Your task to perform on an android device: check the backup settings in the google photos Image 0: 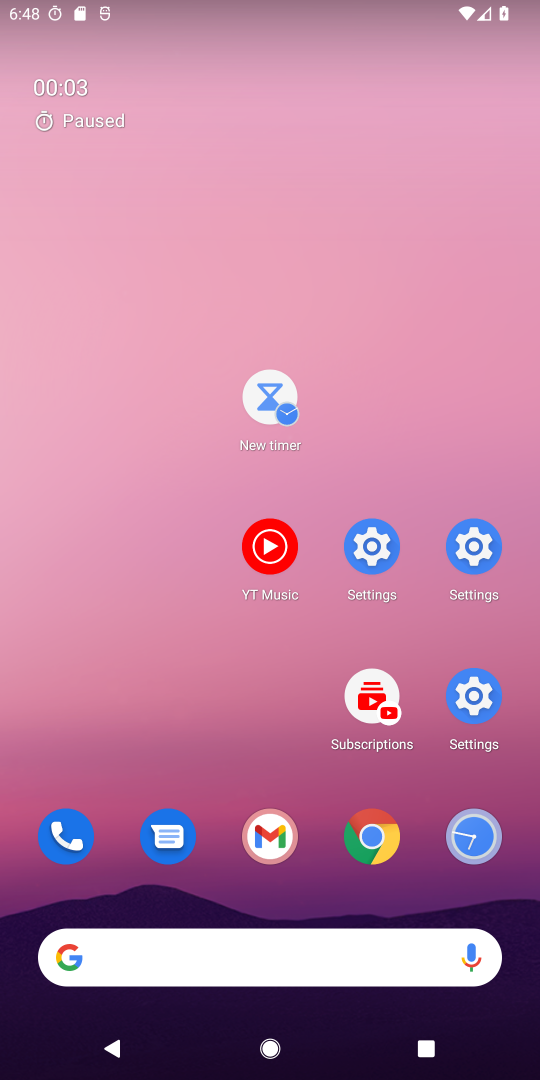
Step 0: drag from (333, 772) to (246, 1)
Your task to perform on an android device: check the backup settings in the google photos Image 1: 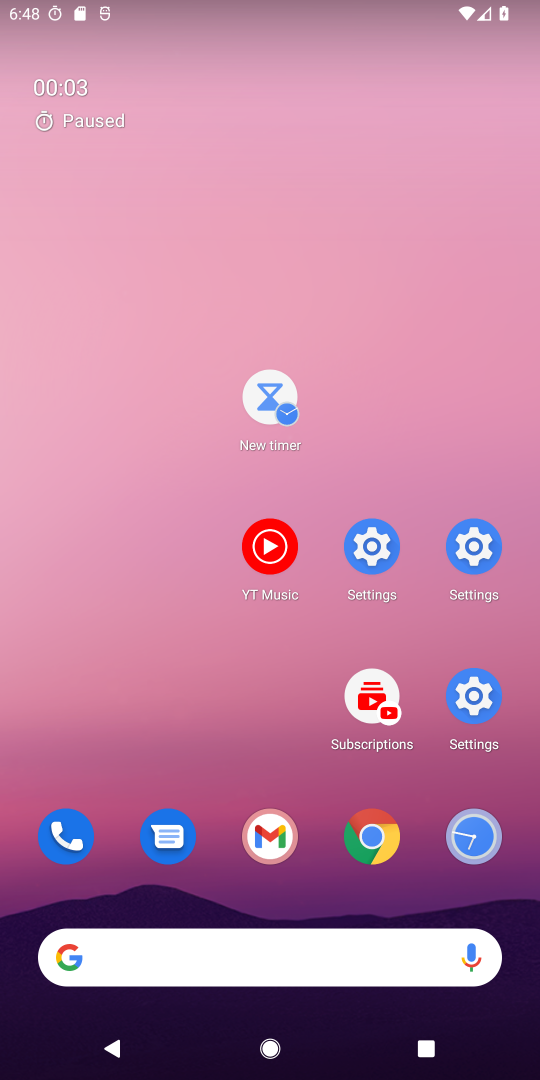
Step 1: drag from (286, 699) to (284, 103)
Your task to perform on an android device: check the backup settings in the google photos Image 2: 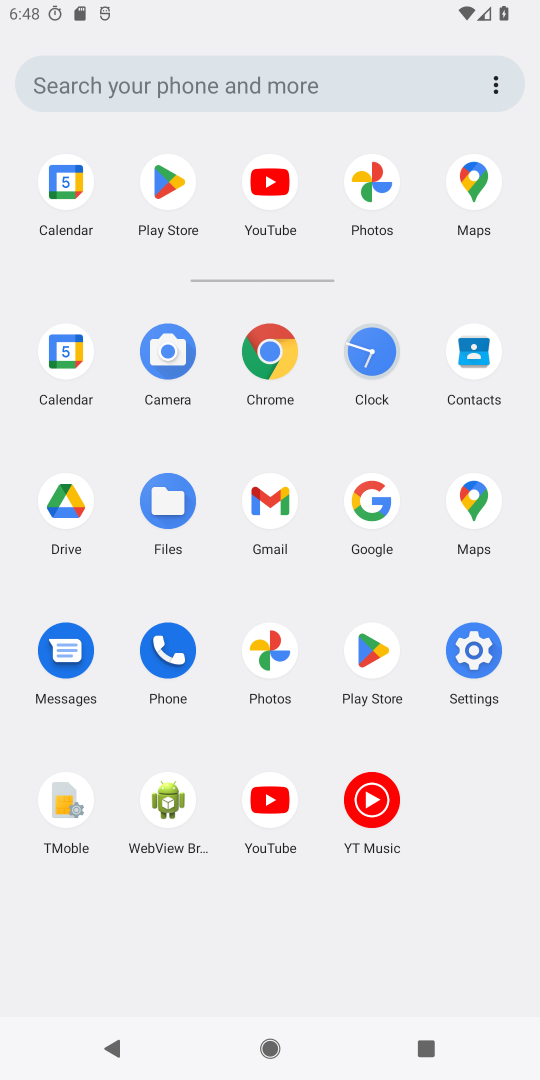
Step 2: drag from (200, 652) to (233, 261)
Your task to perform on an android device: check the backup settings in the google photos Image 3: 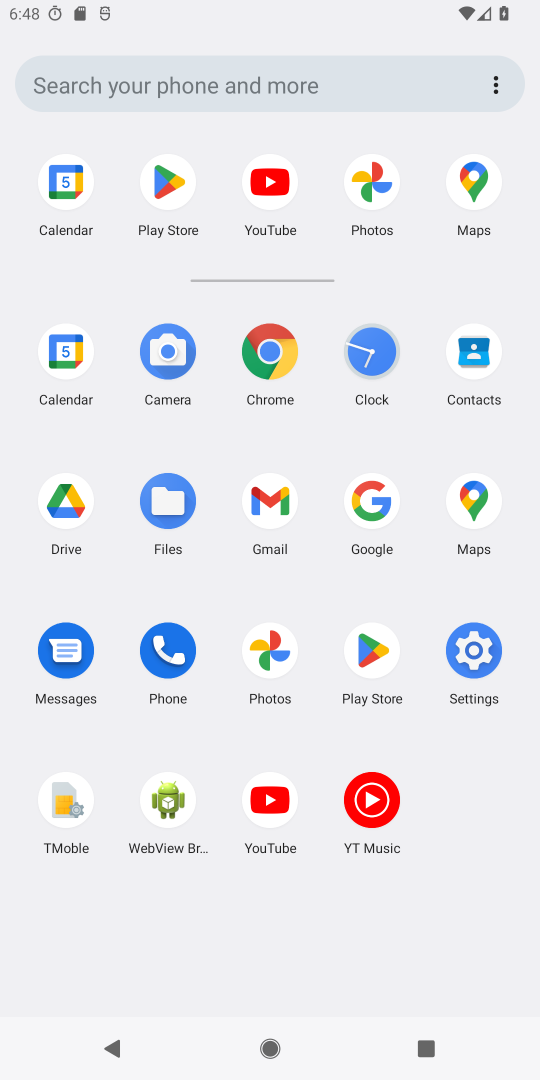
Step 3: click (370, 497)
Your task to perform on an android device: check the backup settings in the google photos Image 4: 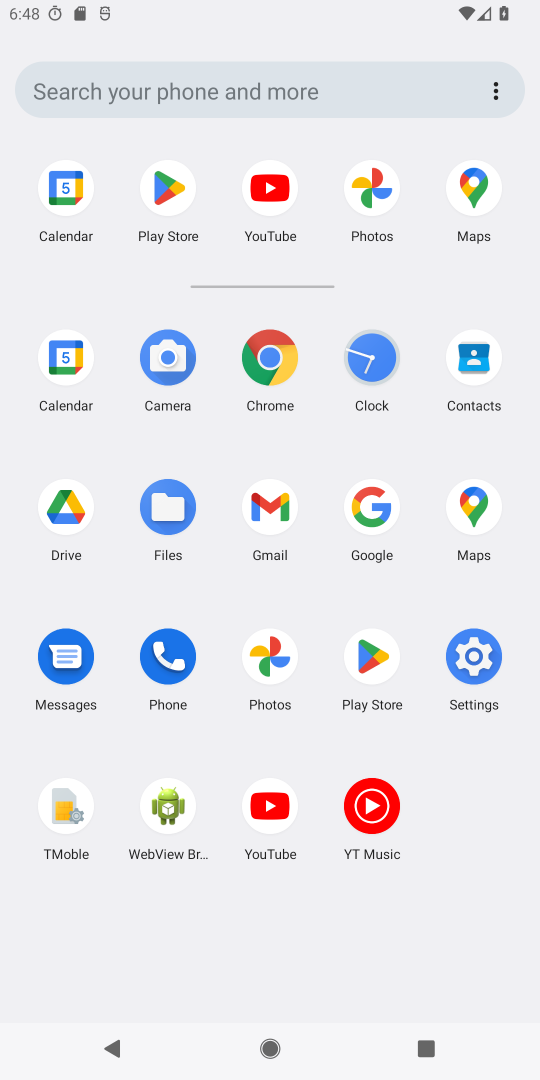
Step 4: click (371, 517)
Your task to perform on an android device: check the backup settings in the google photos Image 5: 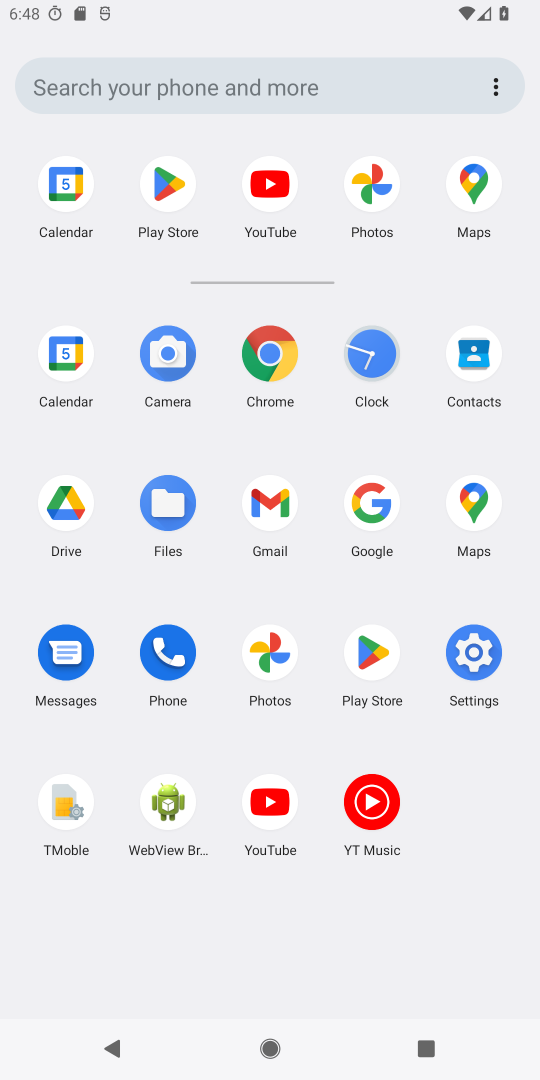
Step 5: click (373, 519)
Your task to perform on an android device: check the backup settings in the google photos Image 6: 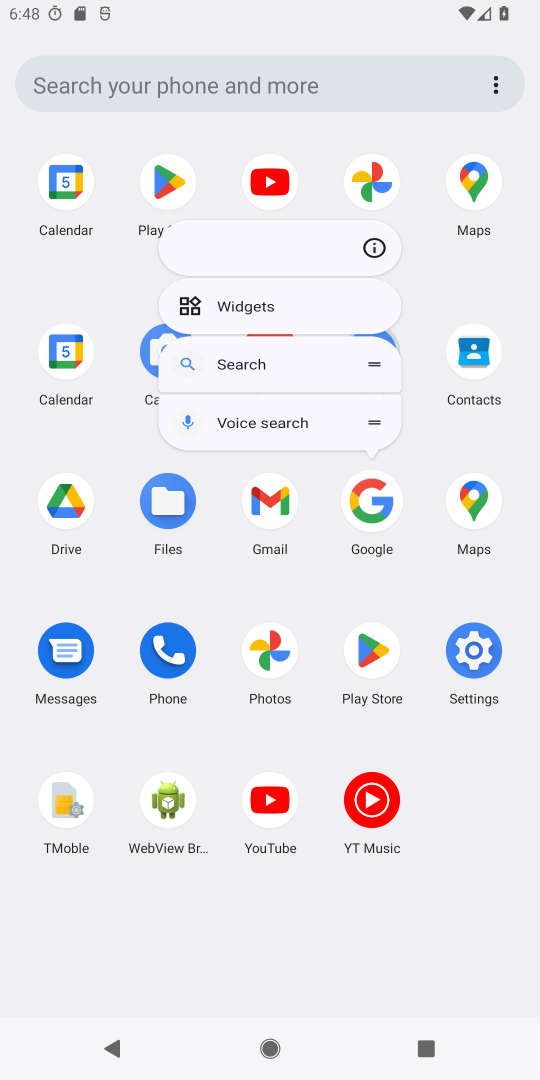
Step 6: click (372, 513)
Your task to perform on an android device: check the backup settings in the google photos Image 7: 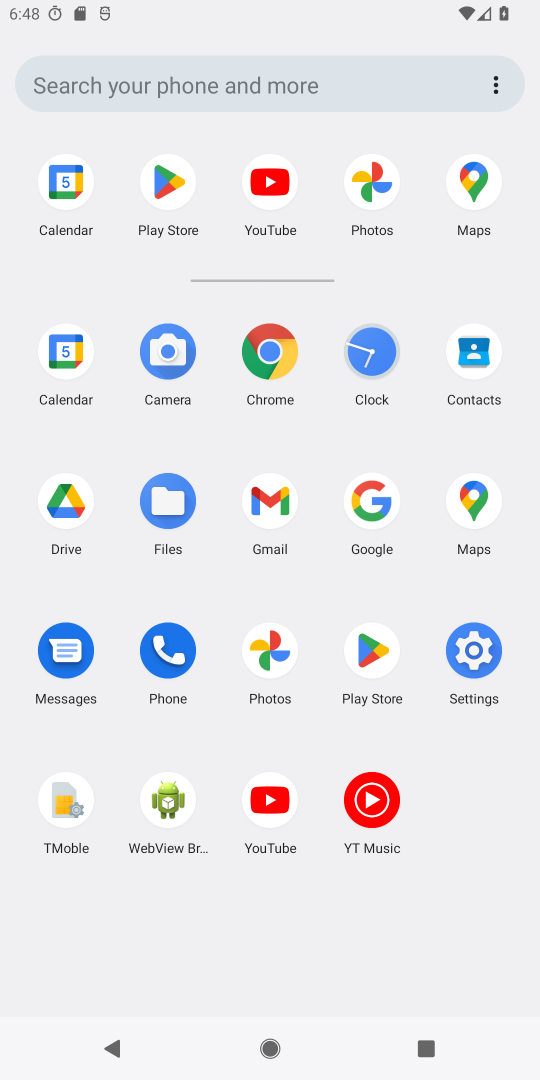
Step 7: click (372, 514)
Your task to perform on an android device: check the backup settings in the google photos Image 8: 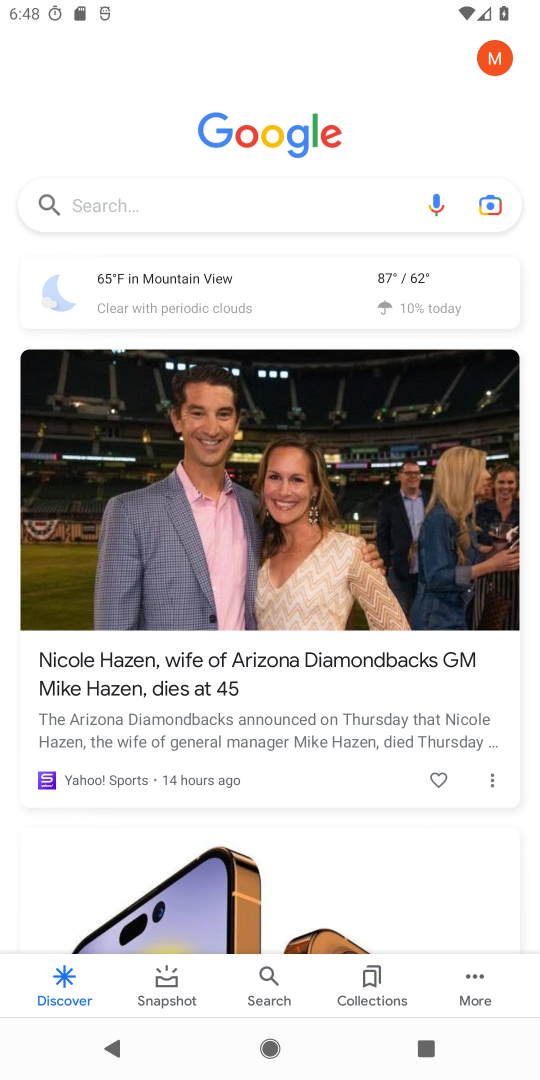
Step 8: press back button
Your task to perform on an android device: check the backup settings in the google photos Image 9: 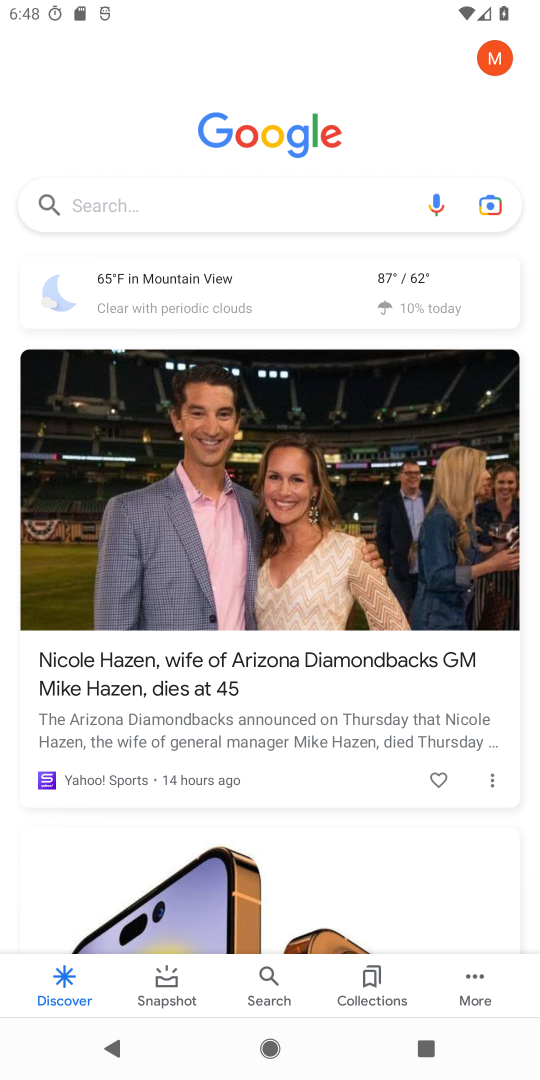
Step 9: press back button
Your task to perform on an android device: check the backup settings in the google photos Image 10: 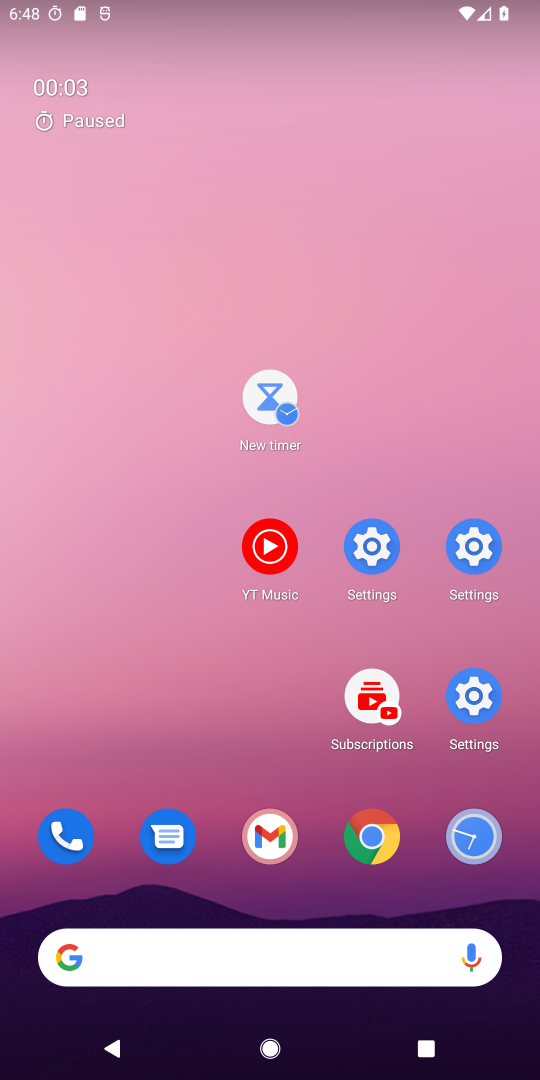
Step 10: drag from (342, 763) to (223, 19)
Your task to perform on an android device: check the backup settings in the google photos Image 11: 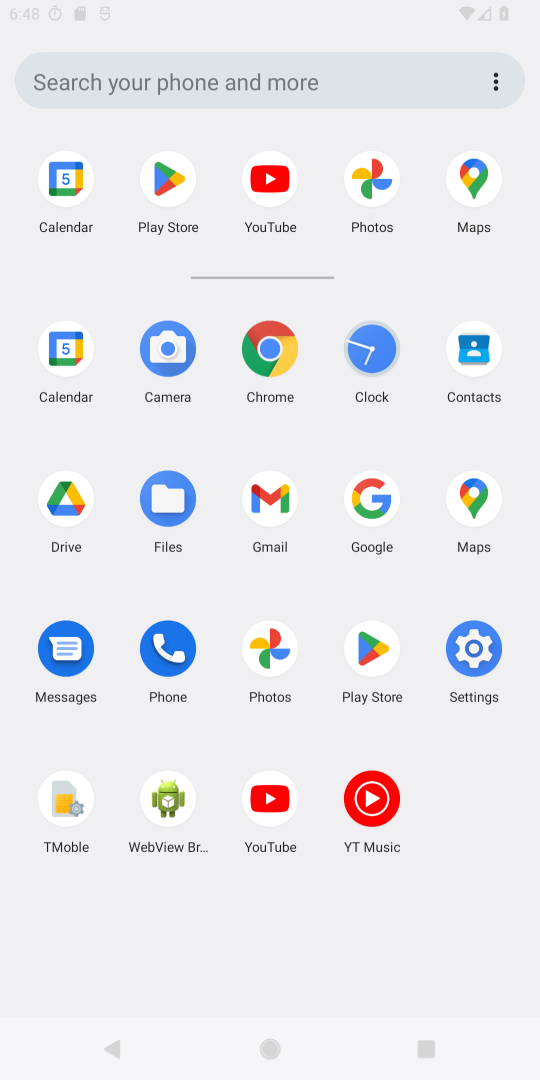
Step 11: drag from (336, 584) to (328, 145)
Your task to perform on an android device: check the backup settings in the google photos Image 12: 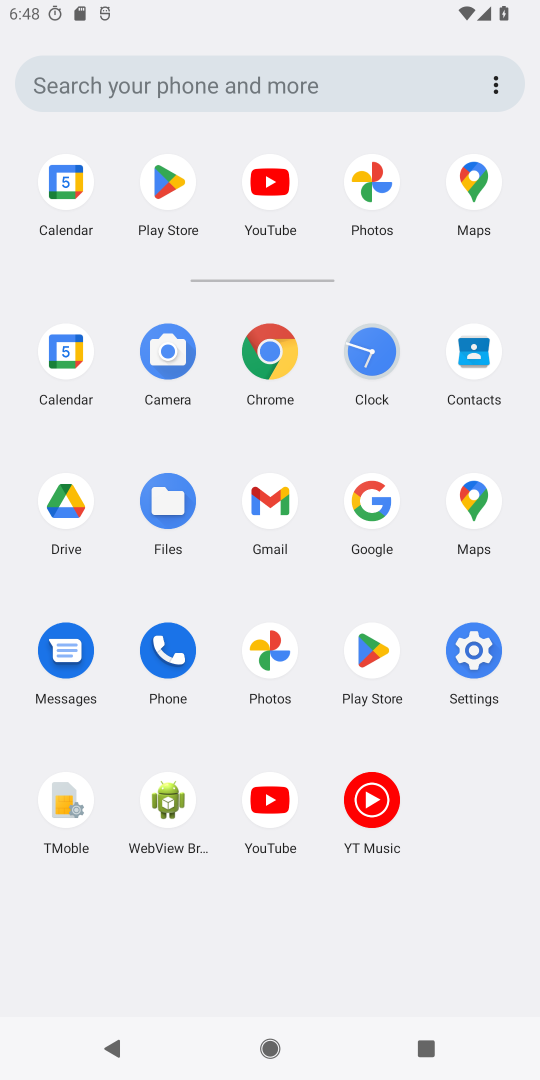
Step 12: click (271, 655)
Your task to perform on an android device: check the backup settings in the google photos Image 13: 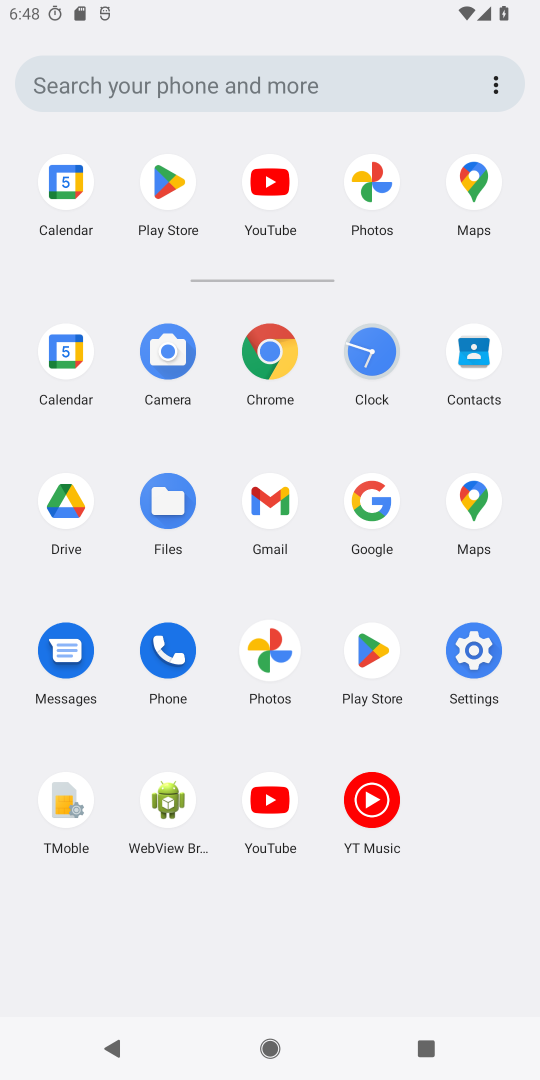
Step 13: click (272, 655)
Your task to perform on an android device: check the backup settings in the google photos Image 14: 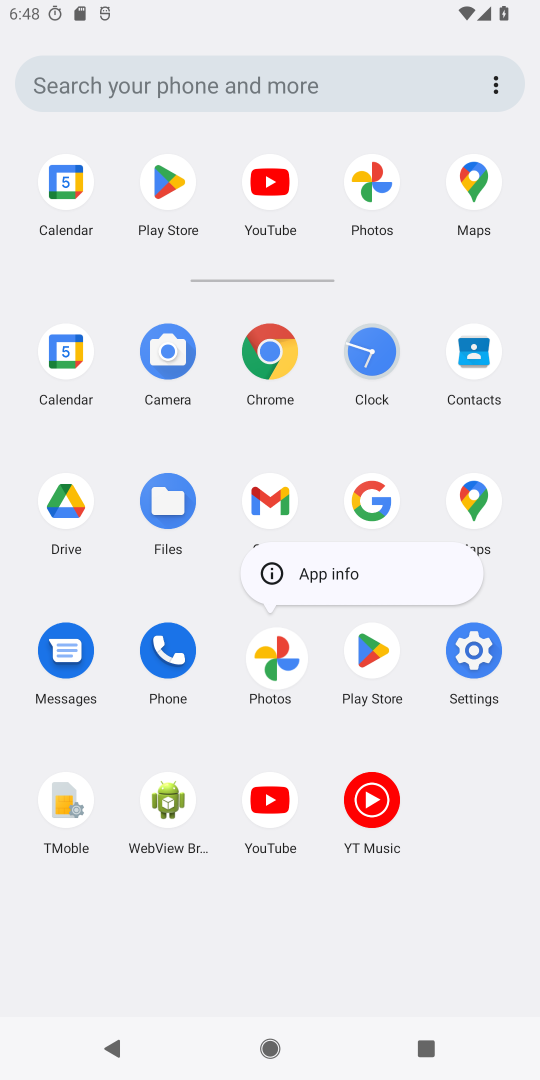
Step 14: click (269, 670)
Your task to perform on an android device: check the backup settings in the google photos Image 15: 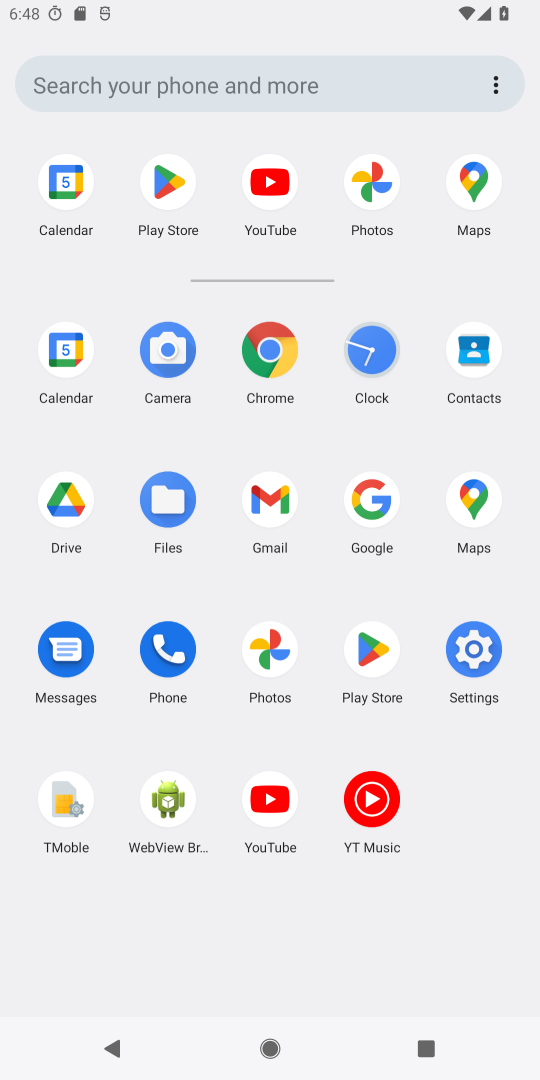
Step 15: click (263, 655)
Your task to perform on an android device: check the backup settings in the google photos Image 16: 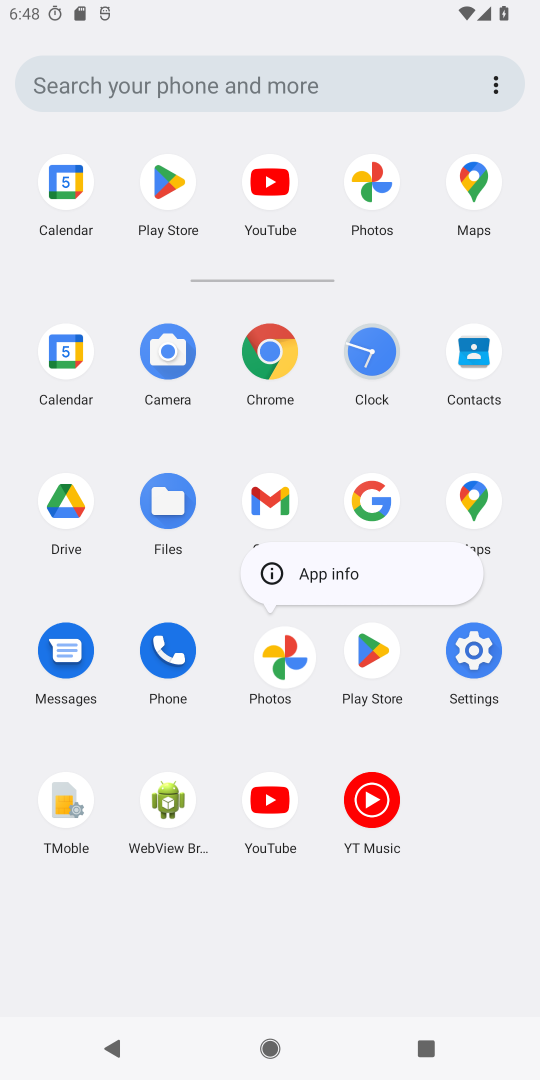
Step 16: click (278, 662)
Your task to perform on an android device: check the backup settings in the google photos Image 17: 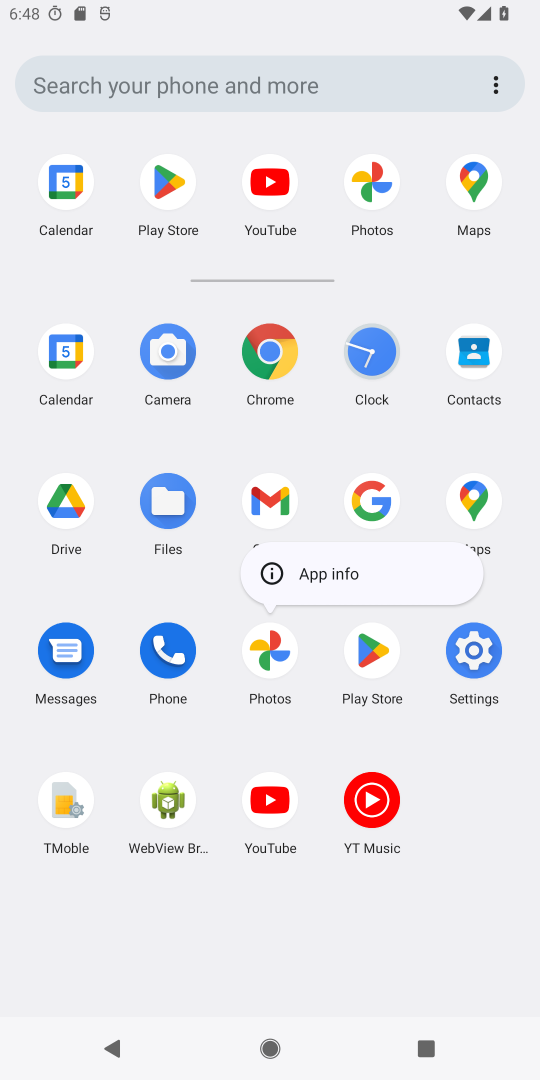
Step 17: click (278, 662)
Your task to perform on an android device: check the backup settings in the google photos Image 18: 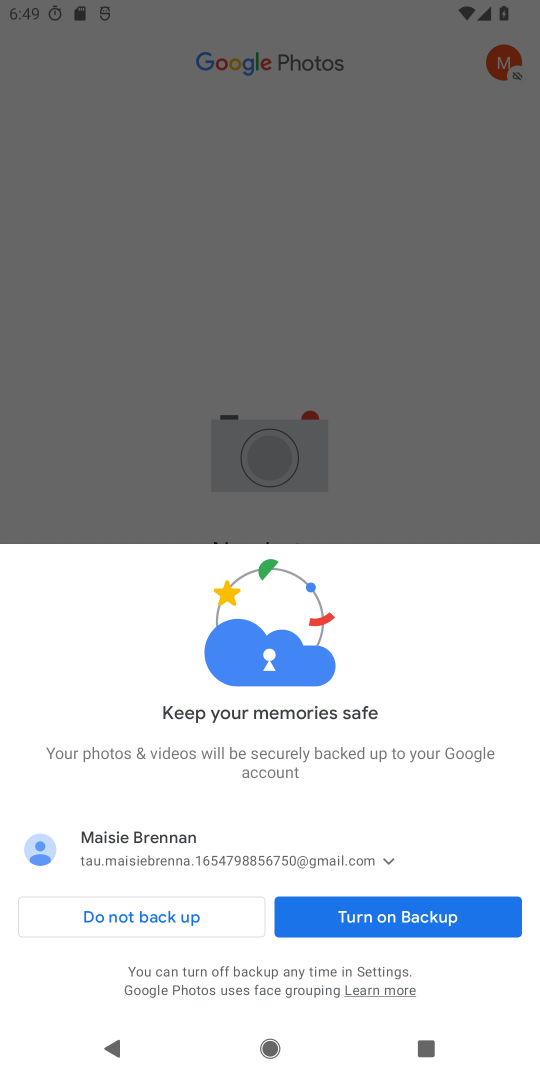
Step 18: click (148, 466)
Your task to perform on an android device: check the backup settings in the google photos Image 19: 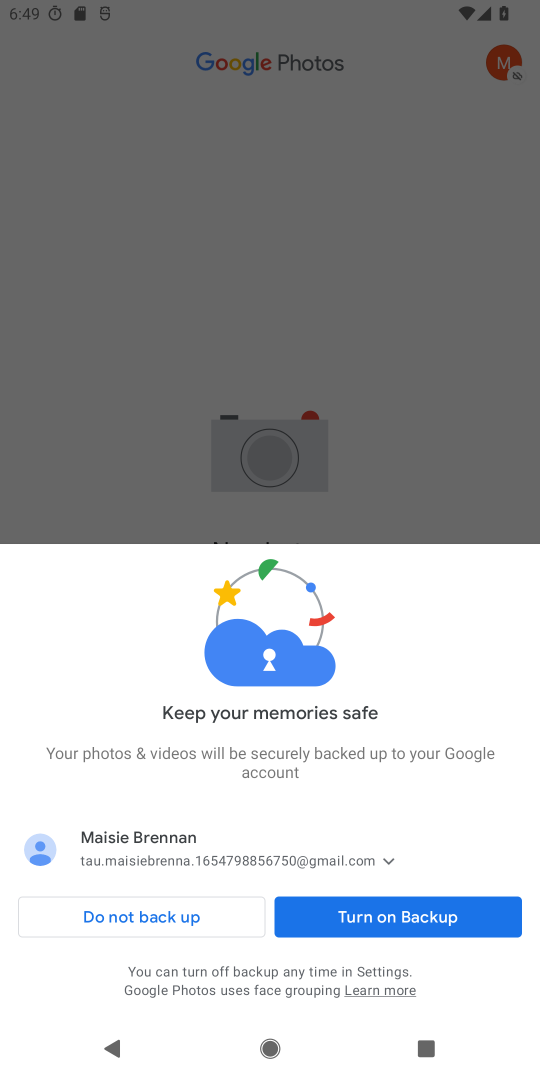
Step 19: click (139, 922)
Your task to perform on an android device: check the backup settings in the google photos Image 20: 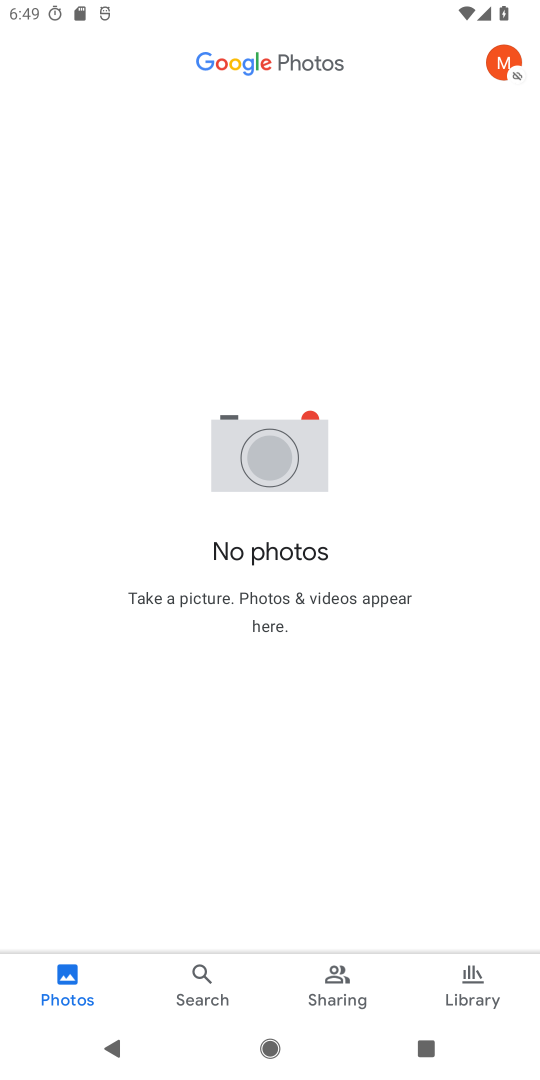
Step 20: drag from (186, 422) to (157, 283)
Your task to perform on an android device: check the backup settings in the google photos Image 21: 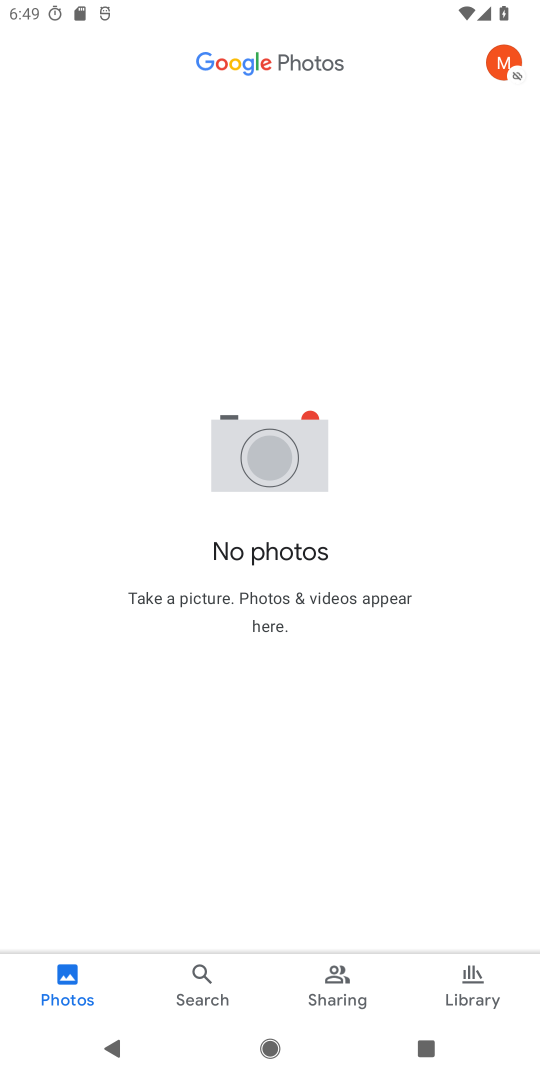
Step 21: press back button
Your task to perform on an android device: check the backup settings in the google photos Image 22: 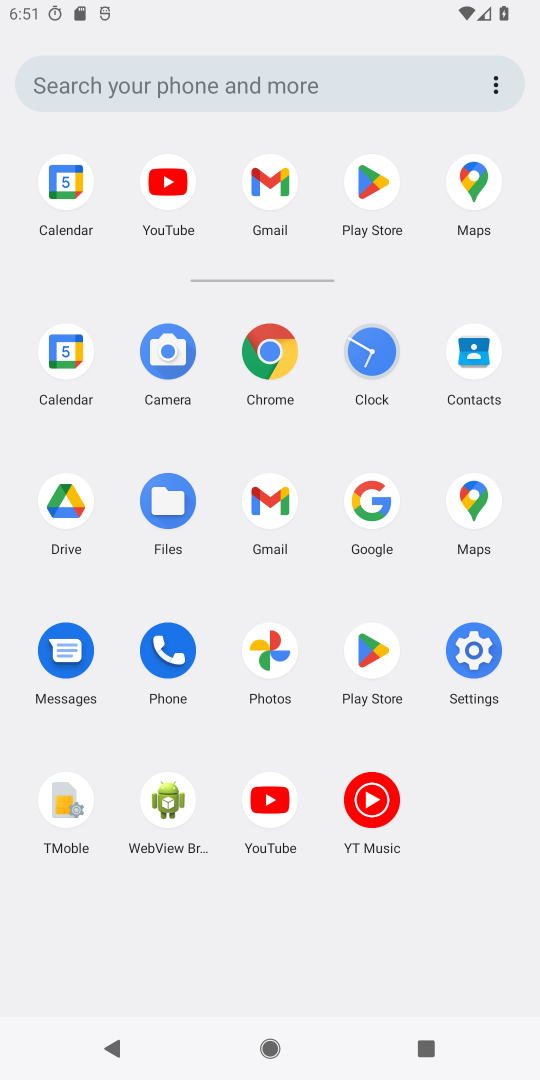
Step 22: click (364, 510)
Your task to perform on an android device: check the backup settings in the google photos Image 23: 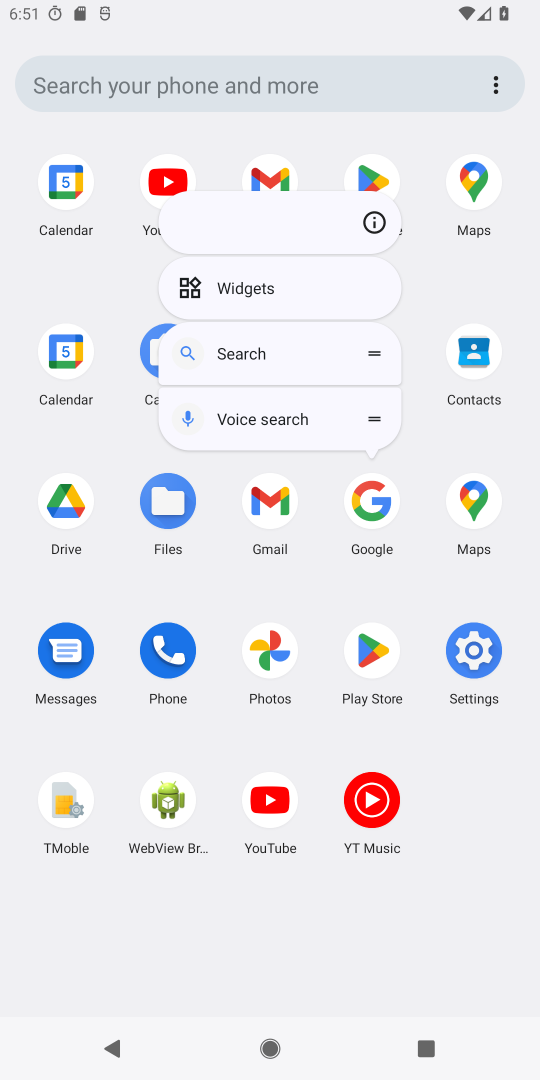
Step 23: click (423, 776)
Your task to perform on an android device: check the backup settings in the google photos Image 24: 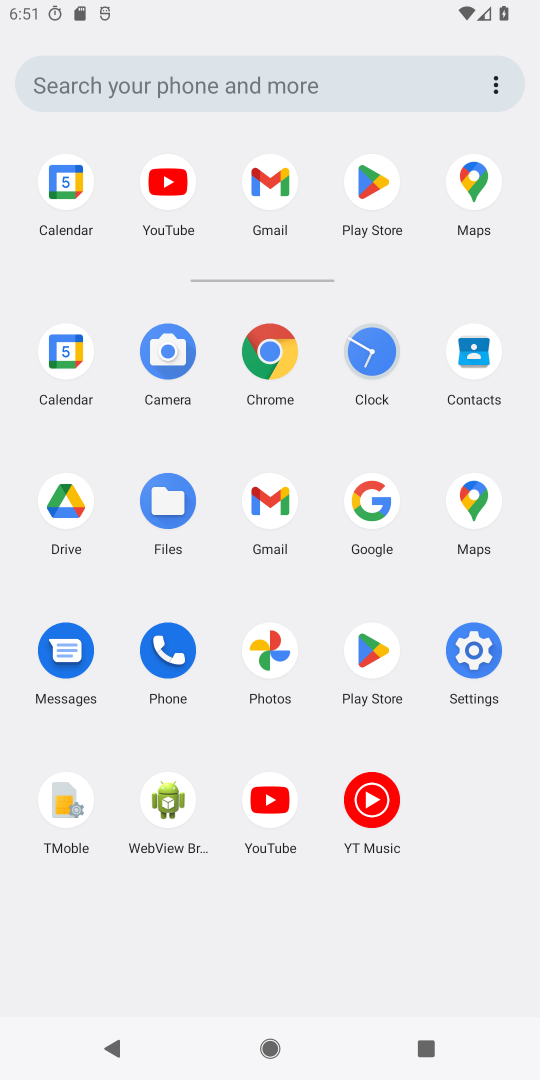
Step 24: click (265, 649)
Your task to perform on an android device: check the backup settings in the google photos Image 25: 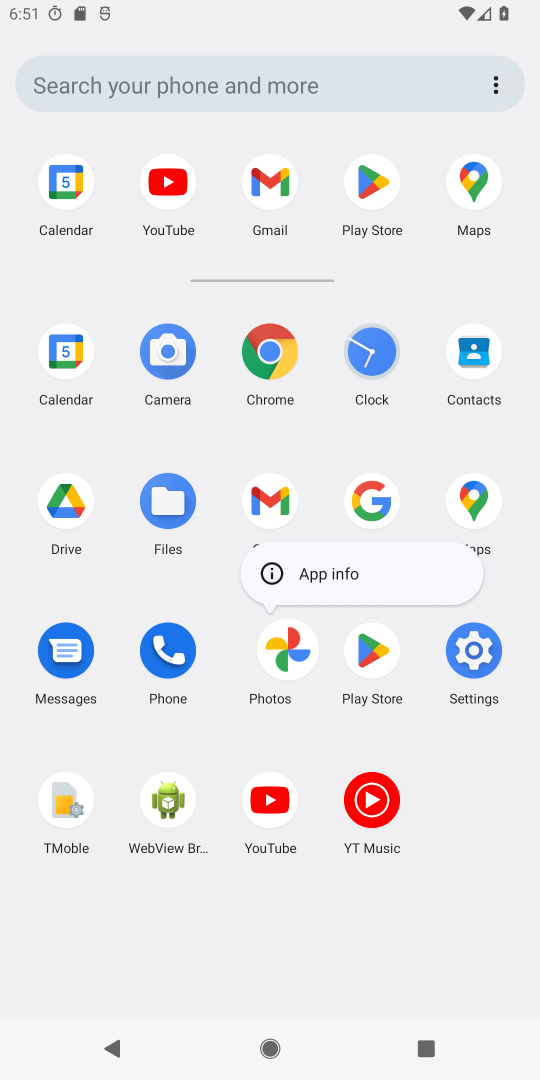
Step 25: click (252, 646)
Your task to perform on an android device: check the backup settings in the google photos Image 26: 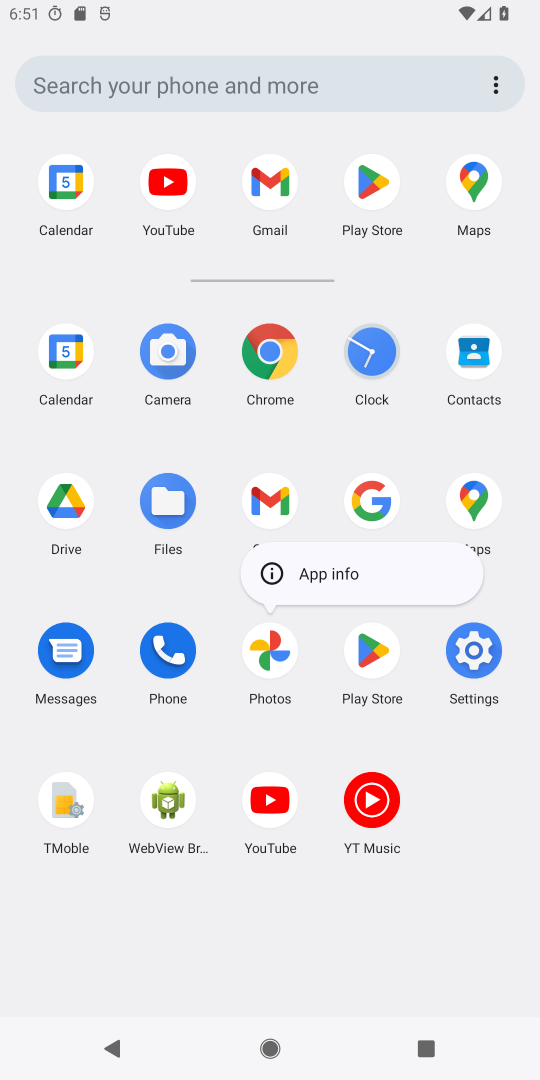
Step 26: click (263, 653)
Your task to perform on an android device: check the backup settings in the google photos Image 27: 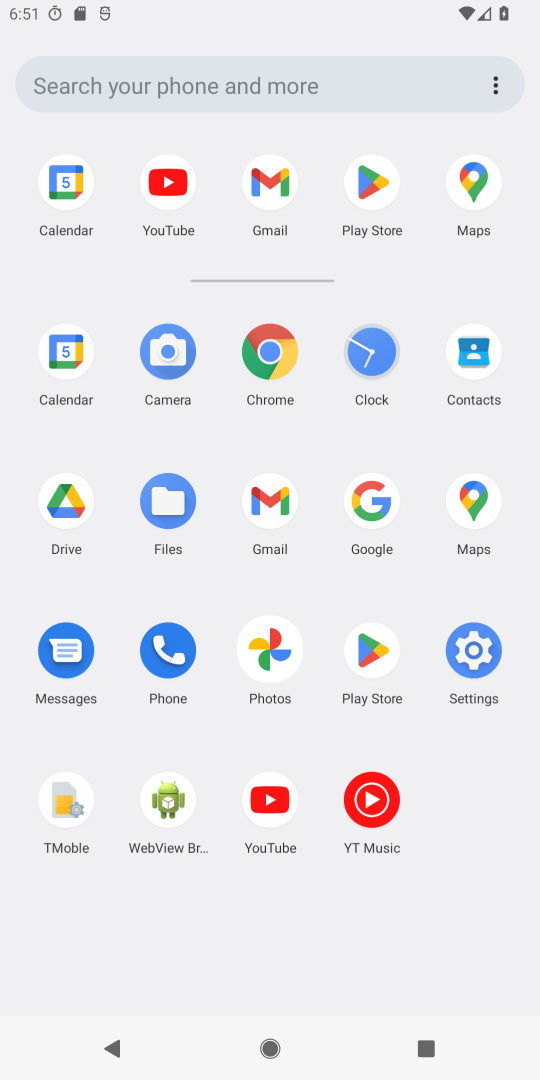
Step 27: click (270, 658)
Your task to perform on an android device: check the backup settings in the google photos Image 28: 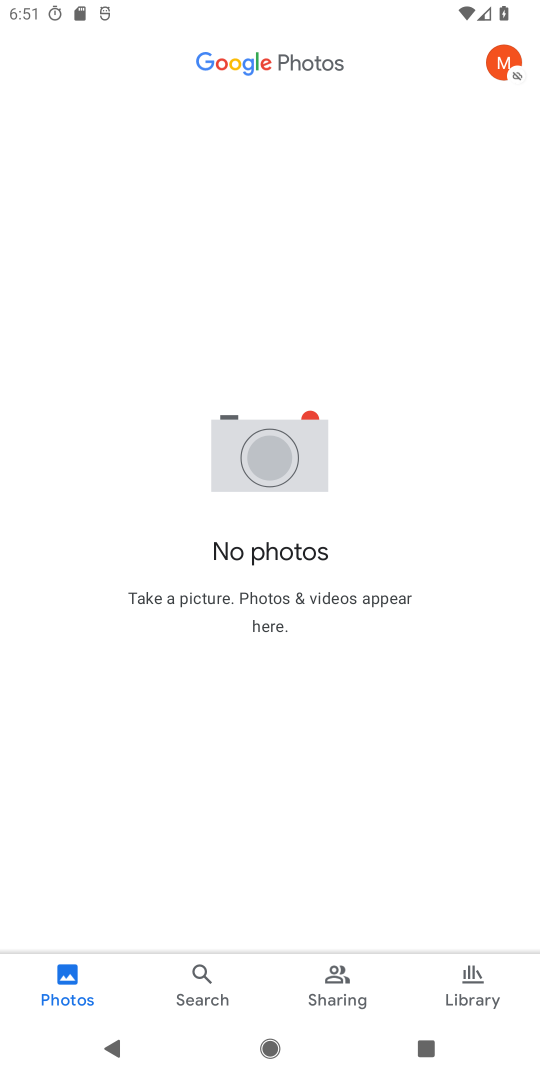
Step 28: drag from (516, 77) to (423, 984)
Your task to perform on an android device: check the backup settings in the google photos Image 29: 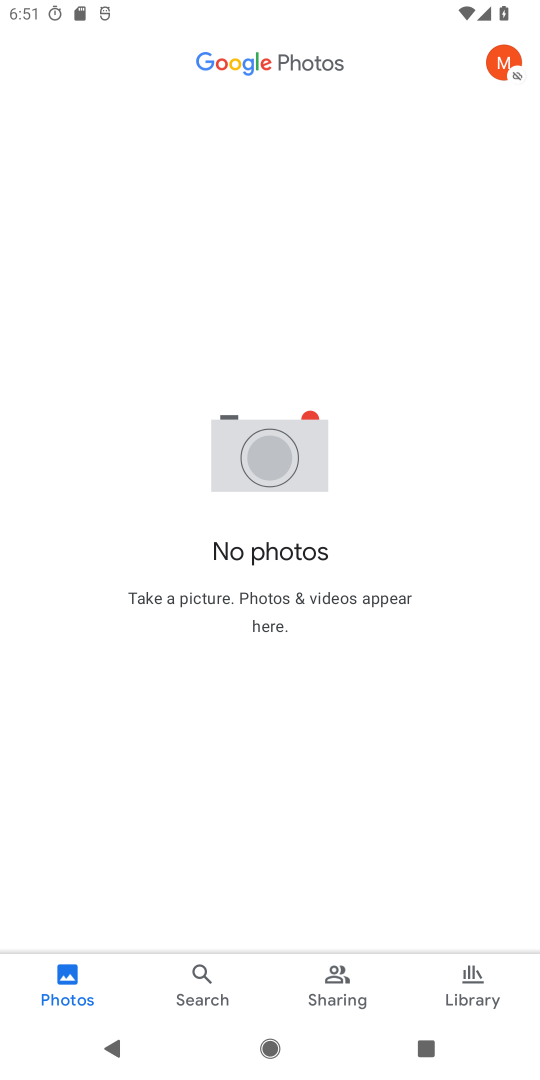
Step 29: drag from (512, 71) to (444, 814)
Your task to perform on an android device: check the backup settings in the google photos Image 30: 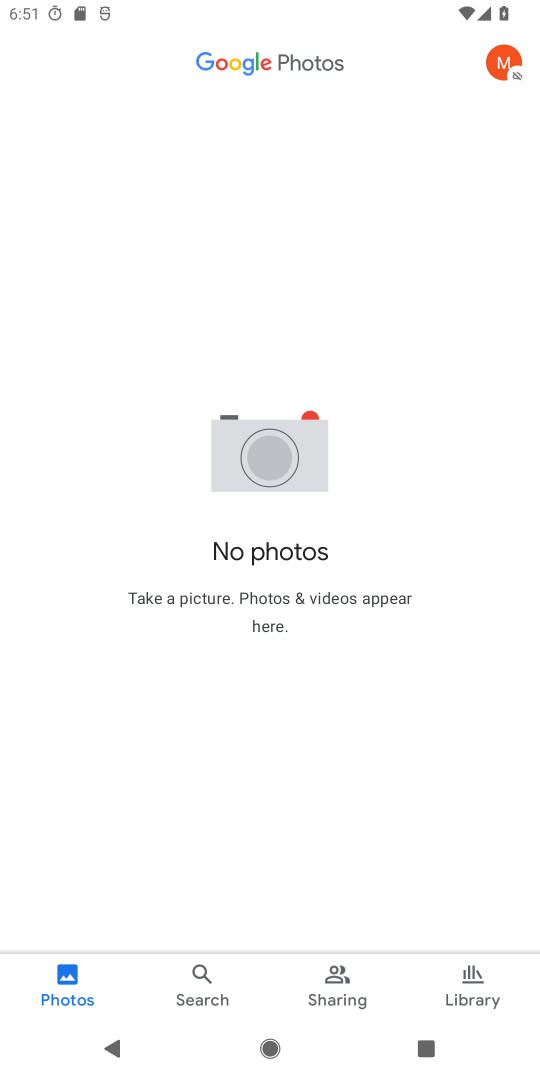
Step 30: click (504, 47)
Your task to perform on an android device: check the backup settings in the google photos Image 31: 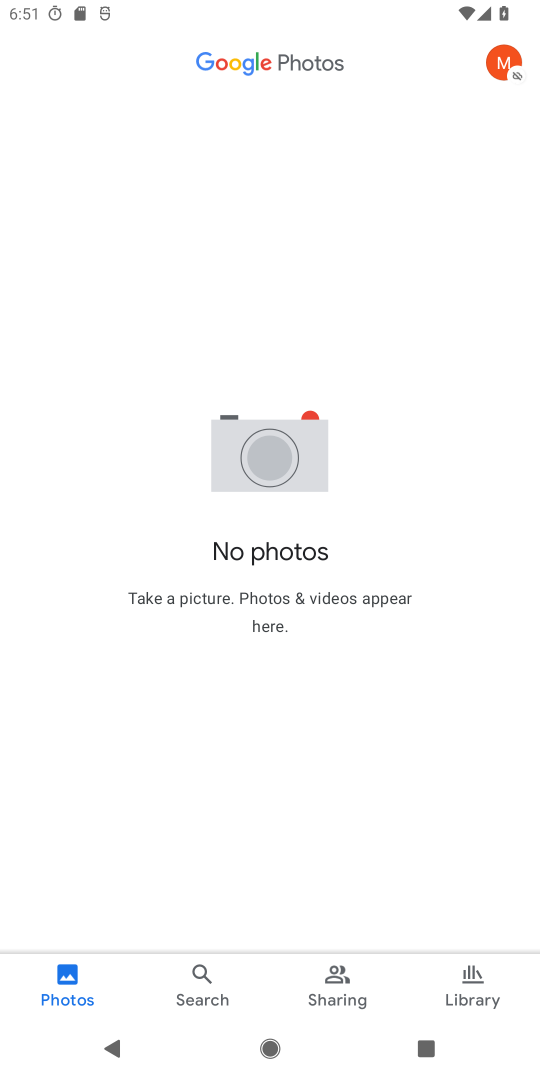
Step 31: click (509, 77)
Your task to perform on an android device: check the backup settings in the google photos Image 32: 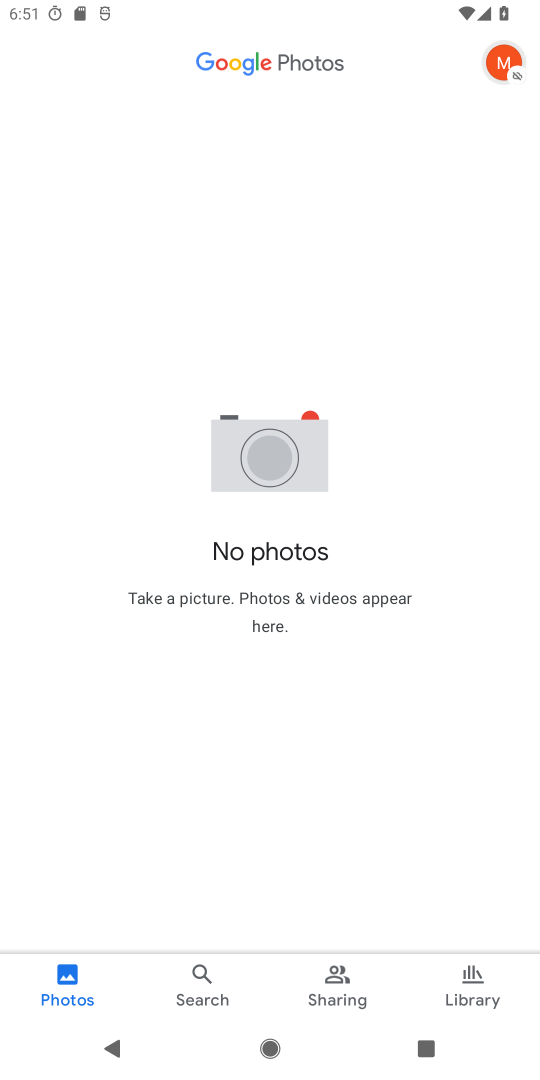
Step 32: click (516, 73)
Your task to perform on an android device: check the backup settings in the google photos Image 33: 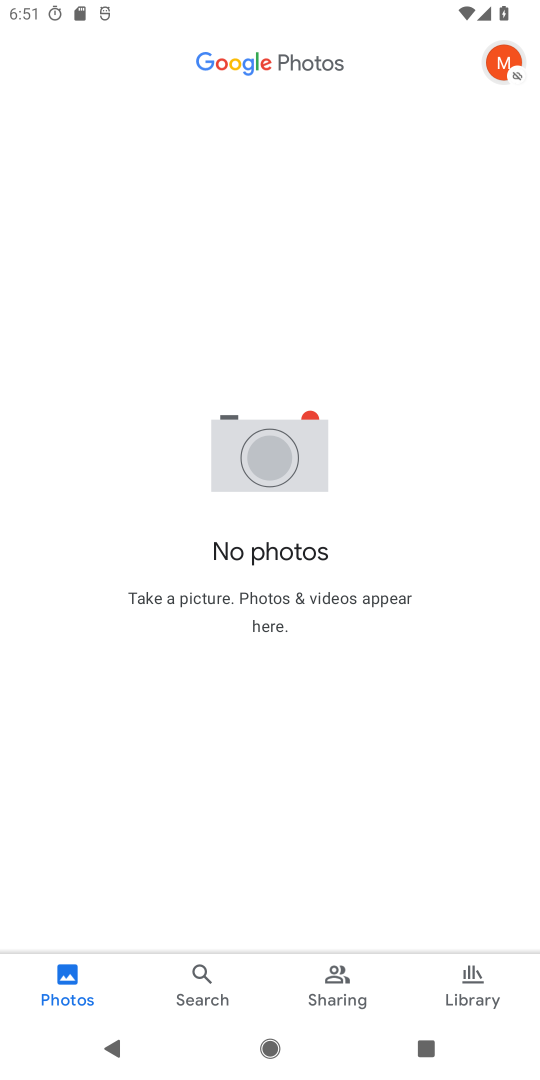
Step 33: click (518, 73)
Your task to perform on an android device: check the backup settings in the google photos Image 34: 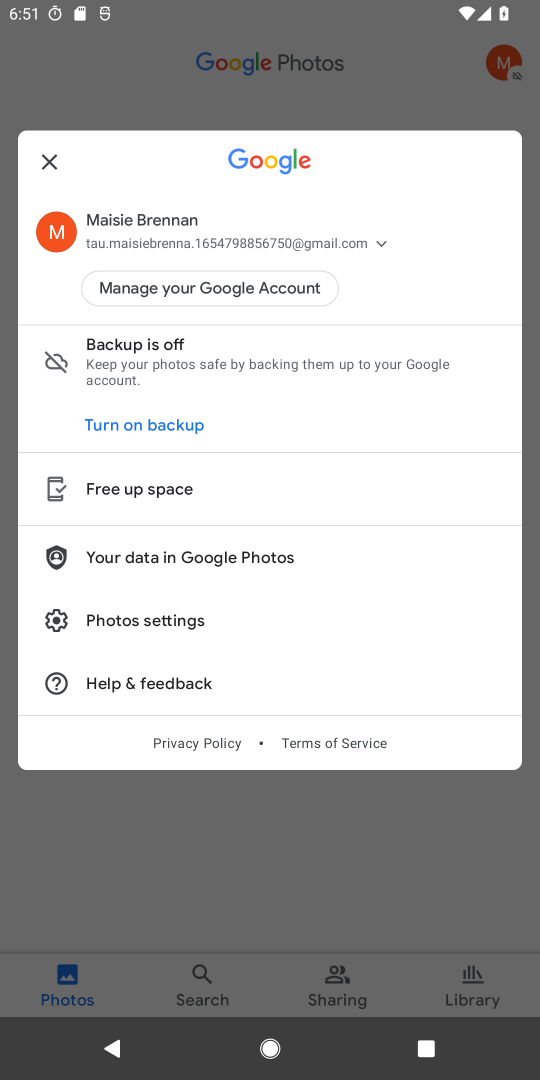
Step 34: click (516, 77)
Your task to perform on an android device: check the backup settings in the google photos Image 35: 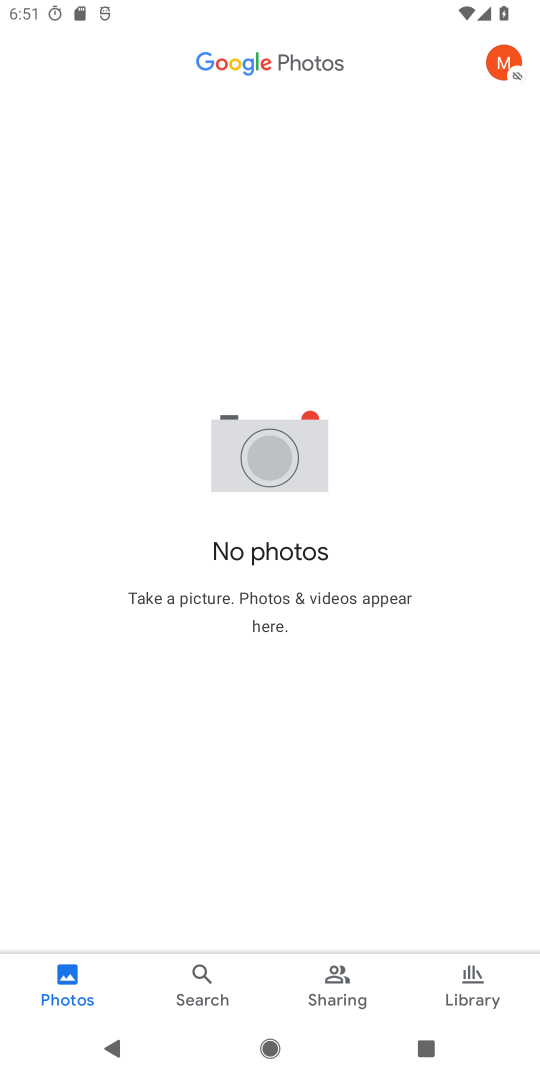
Step 35: drag from (508, 61) to (353, 723)
Your task to perform on an android device: check the backup settings in the google photos Image 36: 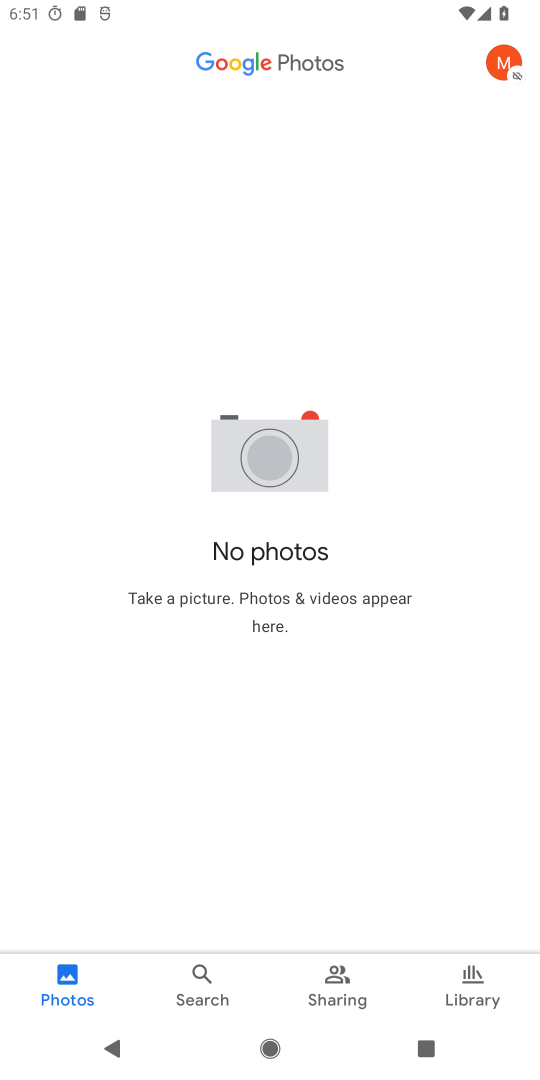
Step 36: click (510, 57)
Your task to perform on an android device: check the backup settings in the google photos Image 37: 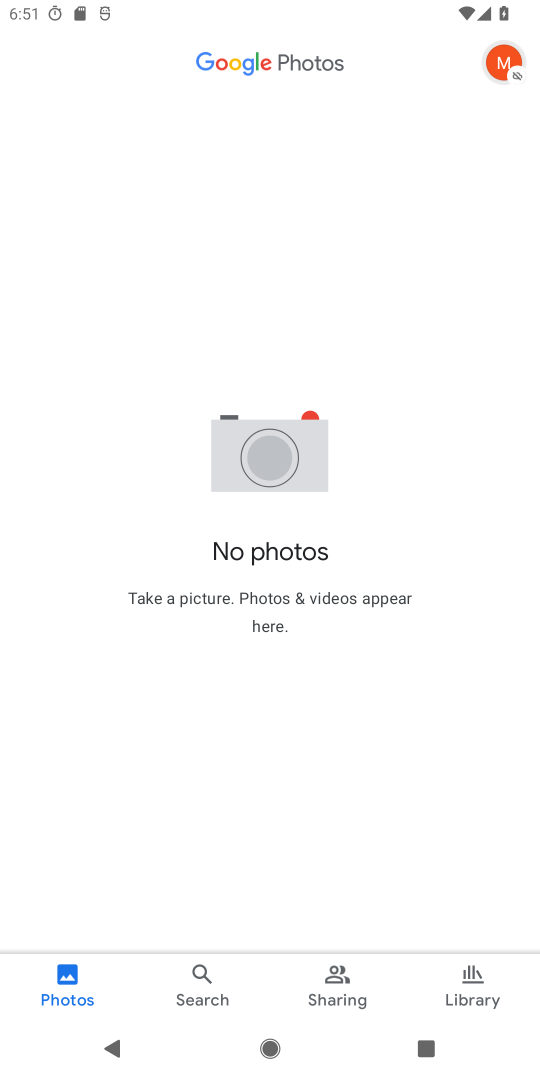
Step 37: drag from (513, 70) to (124, 616)
Your task to perform on an android device: check the backup settings in the google photos Image 38: 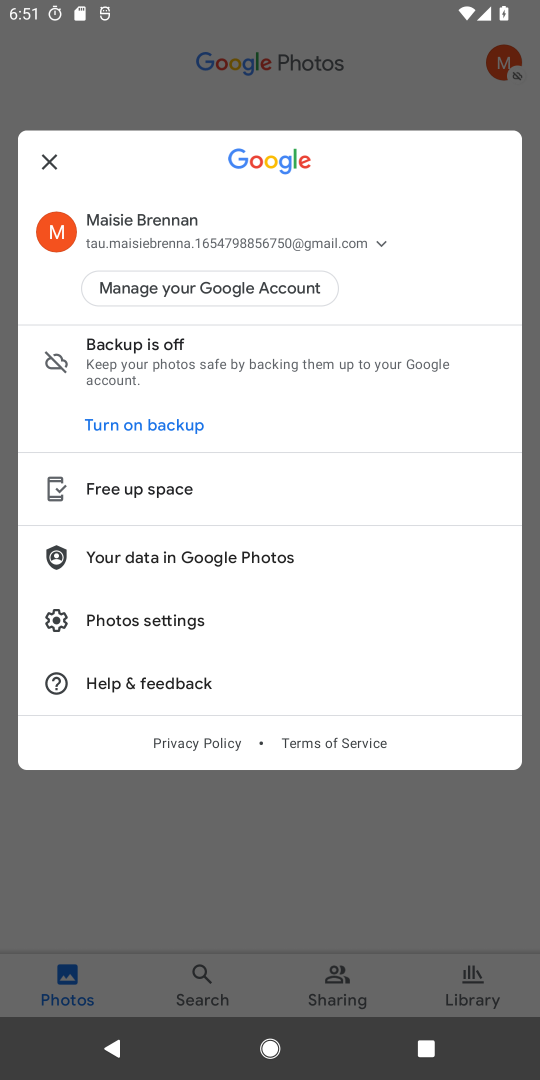
Step 38: click (125, 615)
Your task to perform on an android device: check the backup settings in the google photos Image 39: 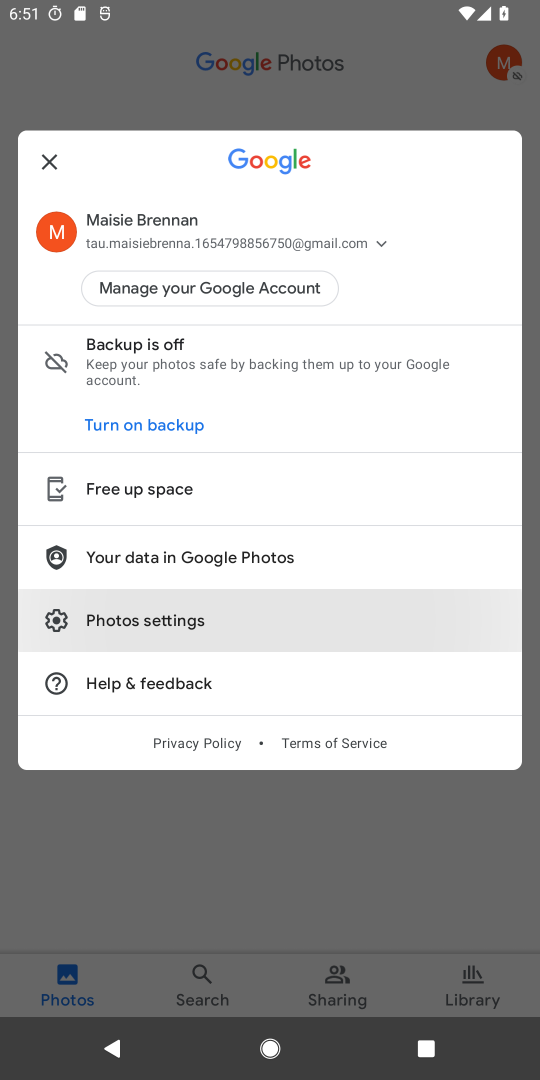
Step 39: click (147, 634)
Your task to perform on an android device: check the backup settings in the google photos Image 40: 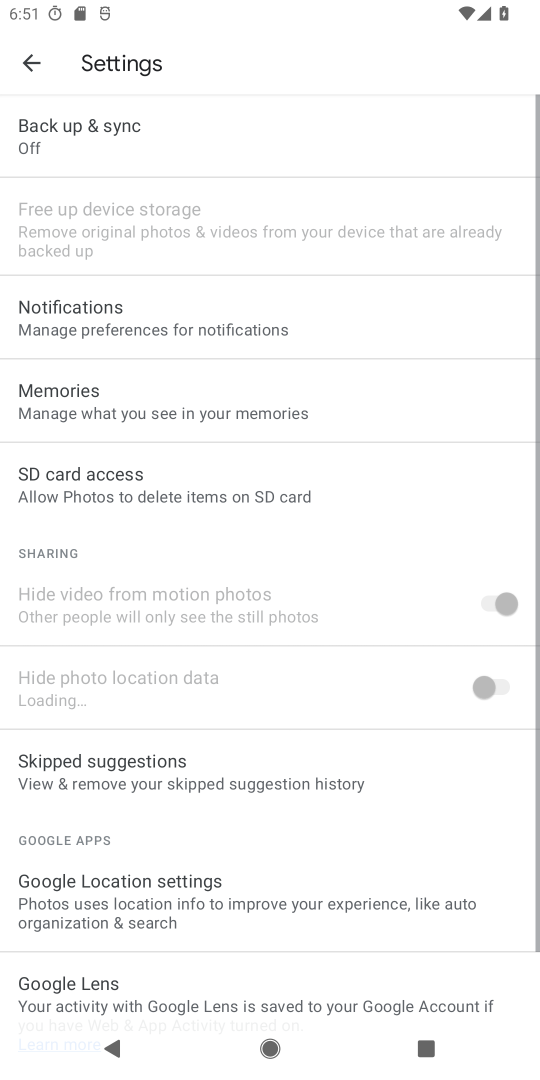
Step 40: click (153, 637)
Your task to perform on an android device: check the backup settings in the google photos Image 41: 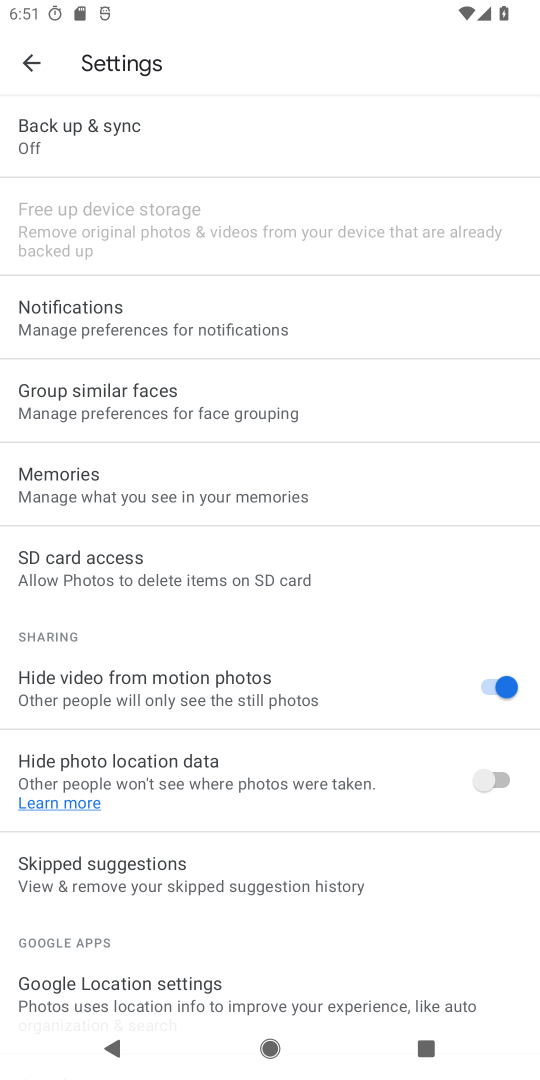
Step 41: click (64, 144)
Your task to perform on an android device: check the backup settings in the google photos Image 42: 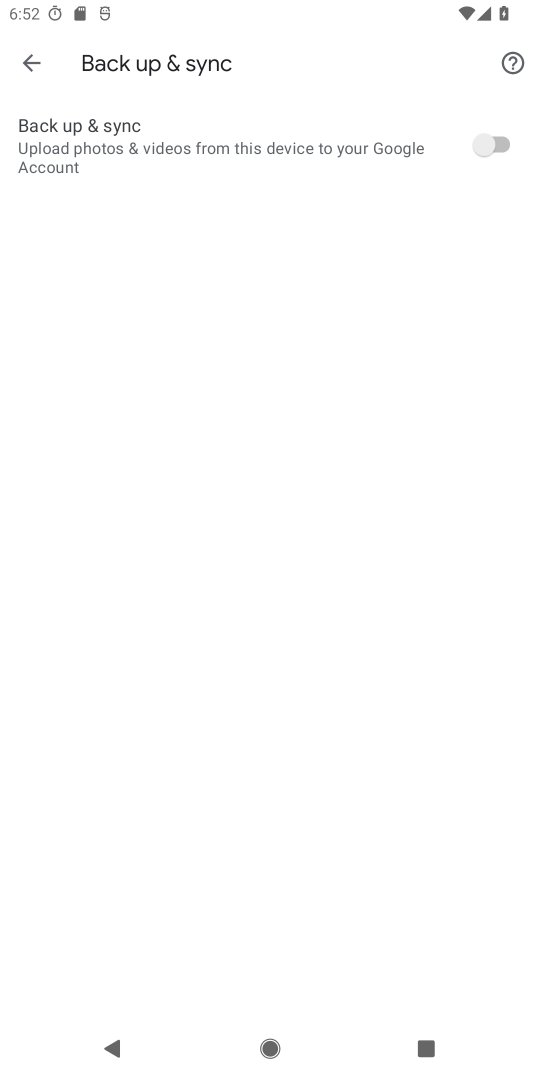
Step 42: click (76, 138)
Your task to perform on an android device: check the backup settings in the google photos Image 43: 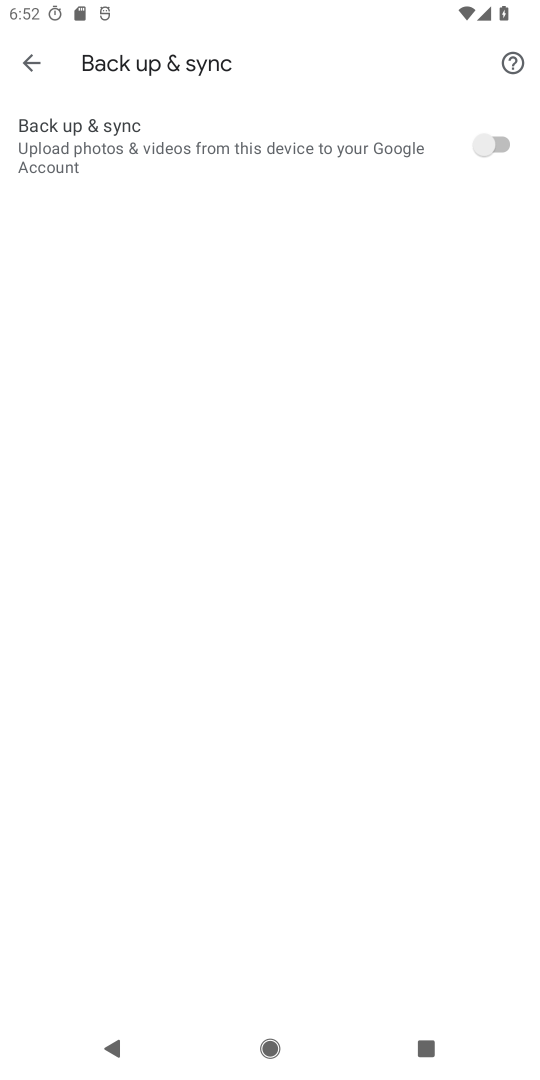
Step 43: click (76, 138)
Your task to perform on an android device: check the backup settings in the google photos Image 44: 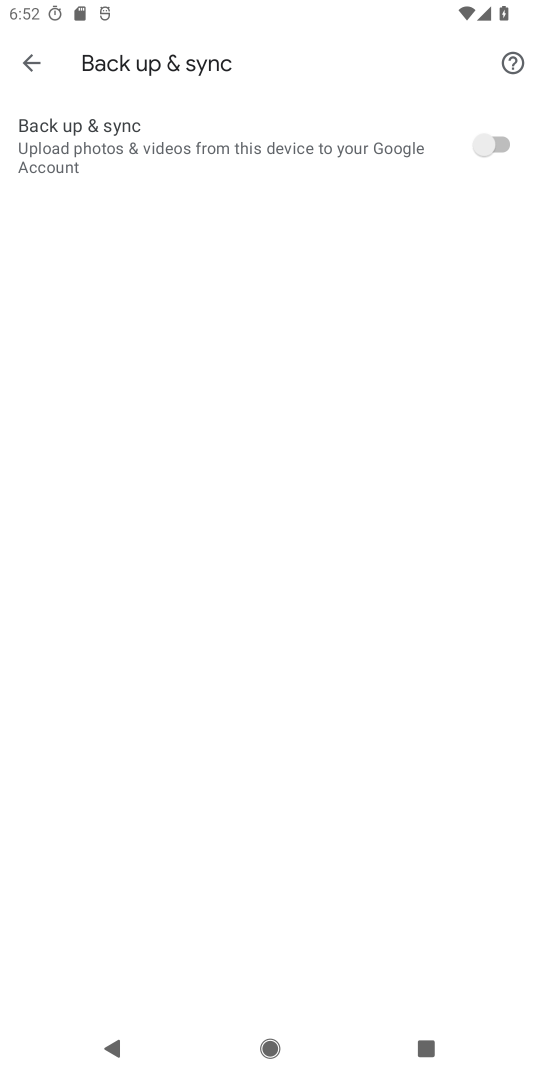
Step 44: click (491, 143)
Your task to perform on an android device: check the backup settings in the google photos Image 45: 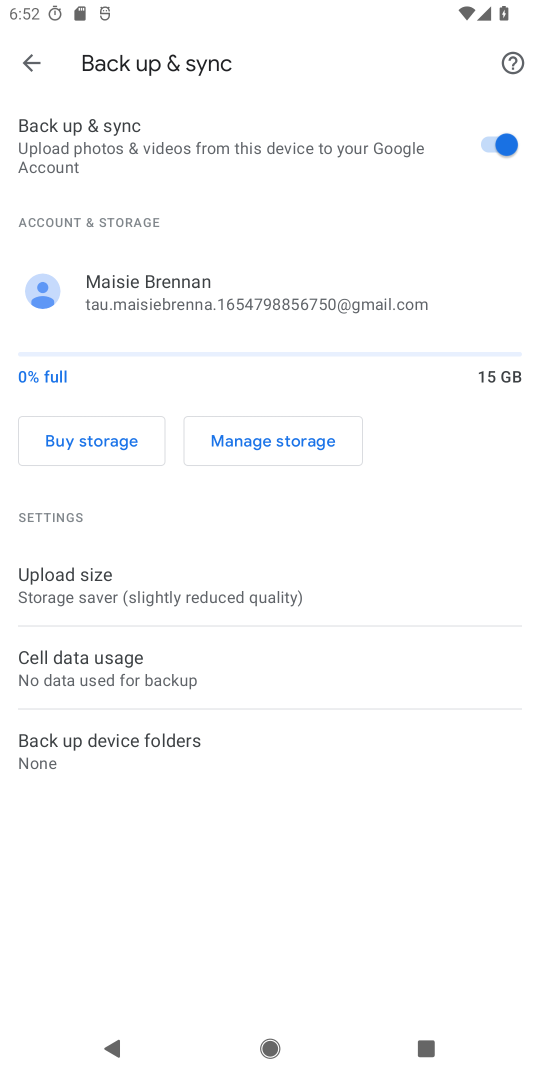
Step 45: click (60, 590)
Your task to perform on an android device: check the backup settings in the google photos Image 46: 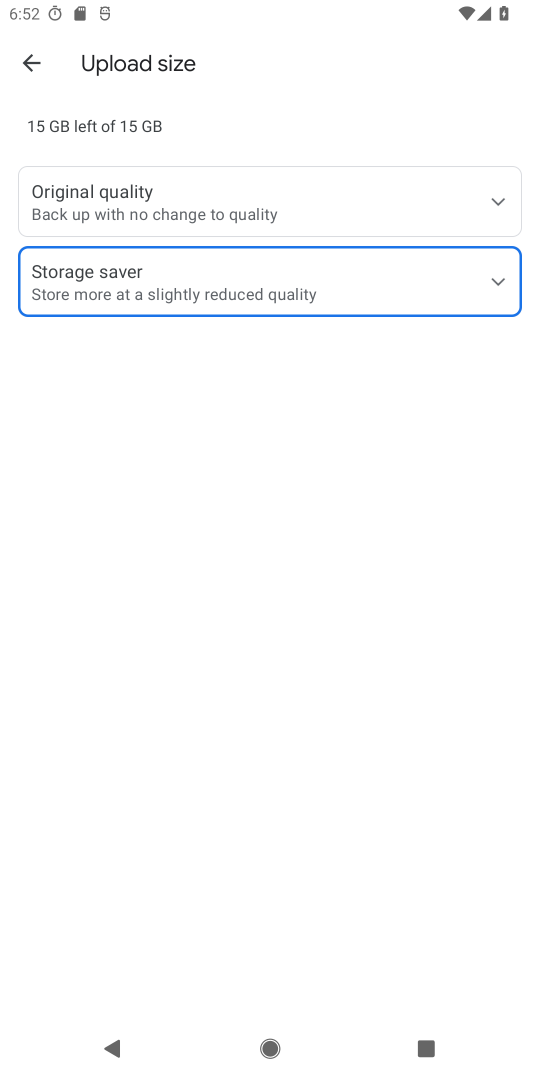
Step 46: click (469, 204)
Your task to perform on an android device: check the backup settings in the google photos Image 47: 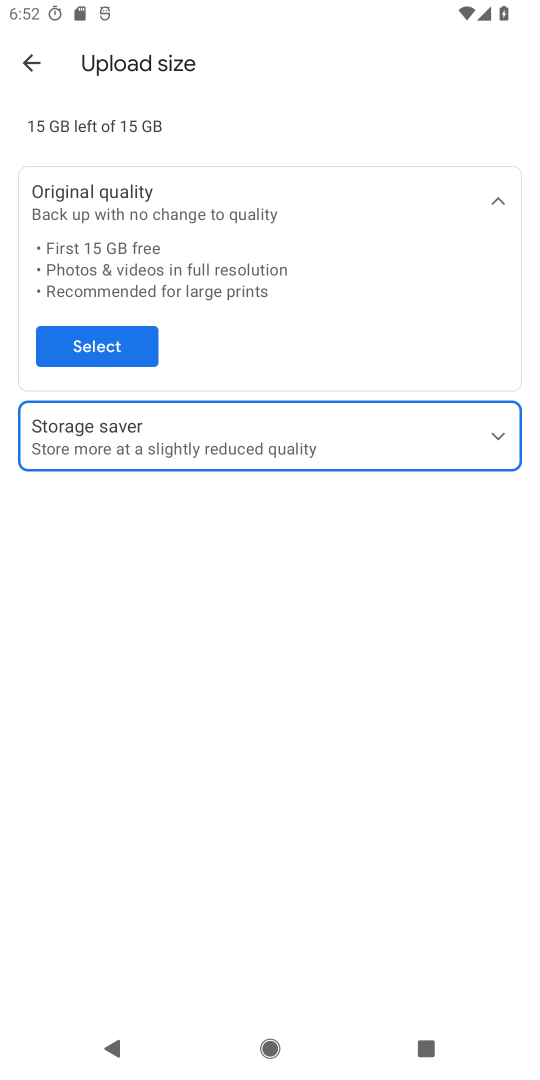
Step 47: click (159, 433)
Your task to perform on an android device: check the backup settings in the google photos Image 48: 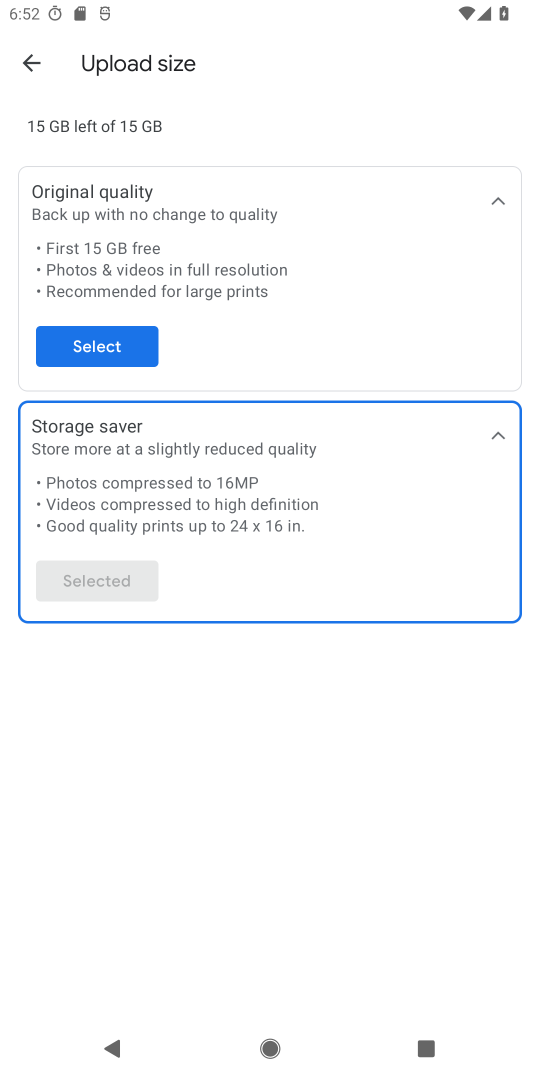
Step 48: task complete